Your task to perform on an android device: toggle priority inbox in the gmail app Image 0: 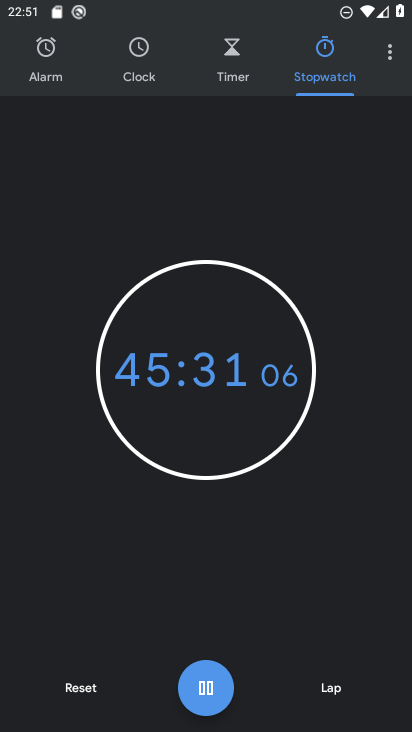
Step 0: press home button
Your task to perform on an android device: toggle priority inbox in the gmail app Image 1: 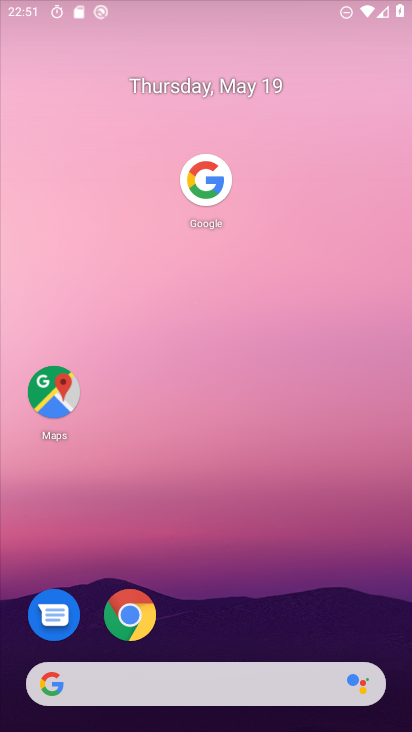
Step 1: drag from (201, 604) to (260, 48)
Your task to perform on an android device: toggle priority inbox in the gmail app Image 2: 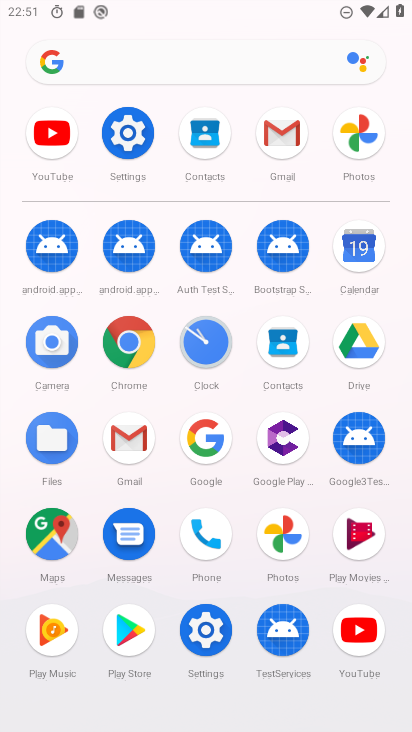
Step 2: click (129, 439)
Your task to perform on an android device: toggle priority inbox in the gmail app Image 3: 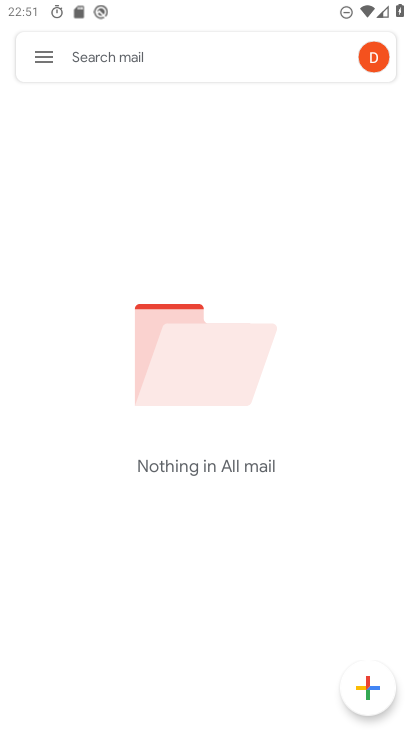
Step 3: click (47, 54)
Your task to perform on an android device: toggle priority inbox in the gmail app Image 4: 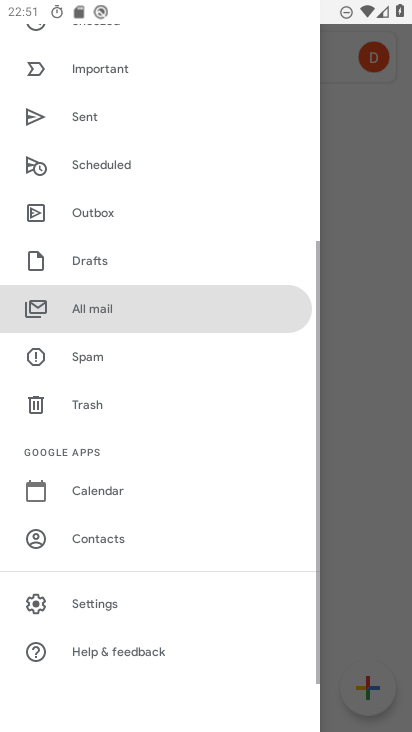
Step 4: click (123, 598)
Your task to perform on an android device: toggle priority inbox in the gmail app Image 5: 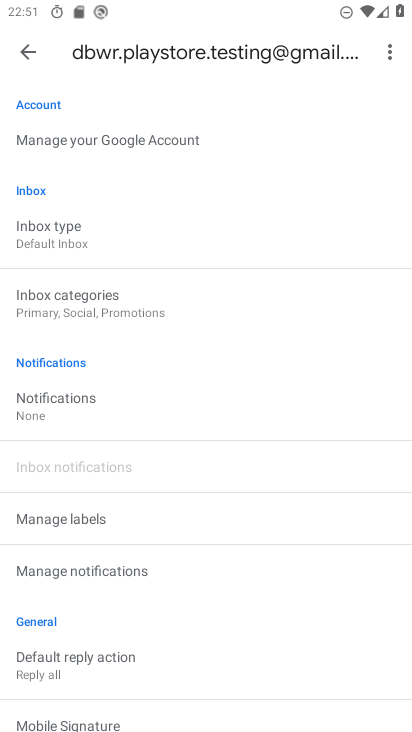
Step 5: click (92, 234)
Your task to perform on an android device: toggle priority inbox in the gmail app Image 6: 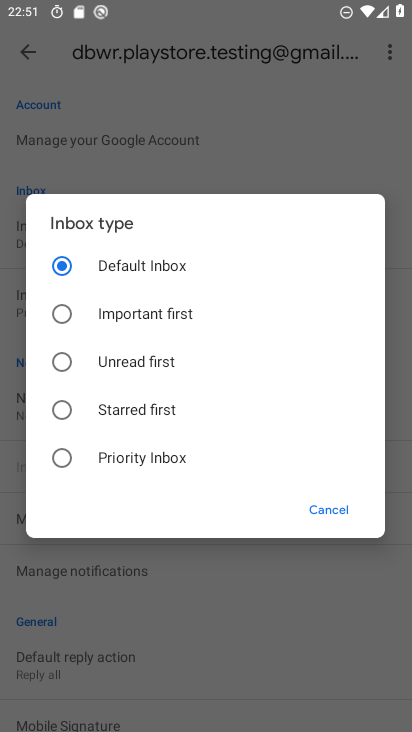
Step 6: click (63, 457)
Your task to perform on an android device: toggle priority inbox in the gmail app Image 7: 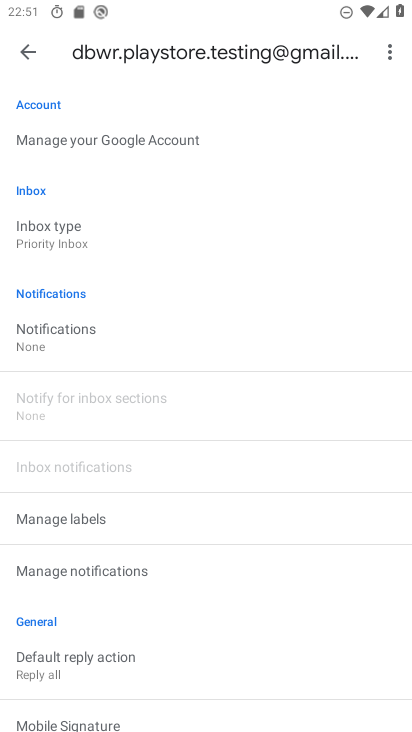
Step 7: task complete